Your task to perform on an android device: Open Google Chrome and click the shortcut for Amazon.com Image 0: 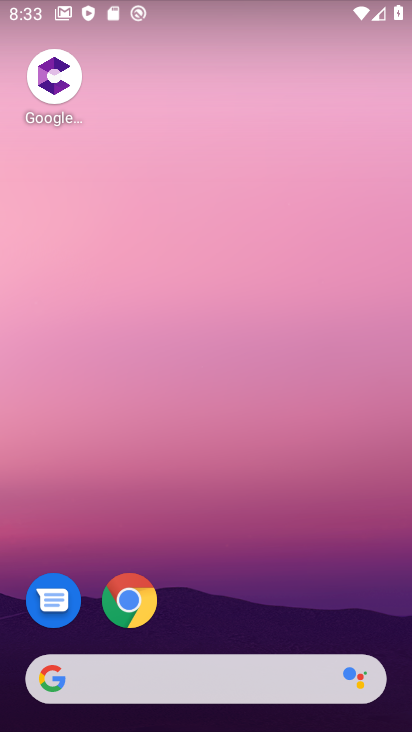
Step 0: click (133, 601)
Your task to perform on an android device: Open Google Chrome and click the shortcut for Amazon.com Image 1: 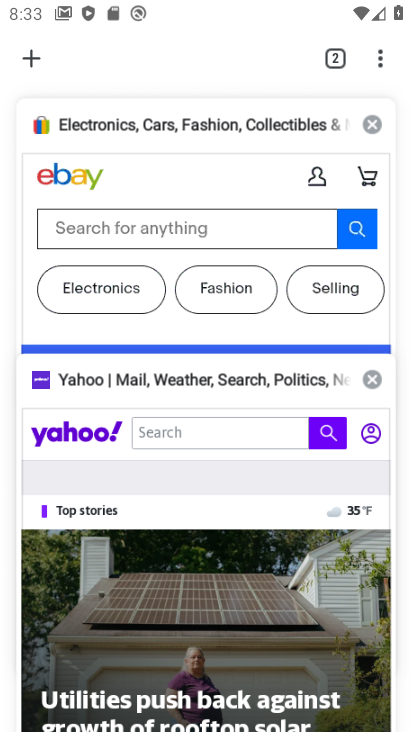
Step 1: click (133, 601)
Your task to perform on an android device: Open Google Chrome and click the shortcut for Amazon.com Image 2: 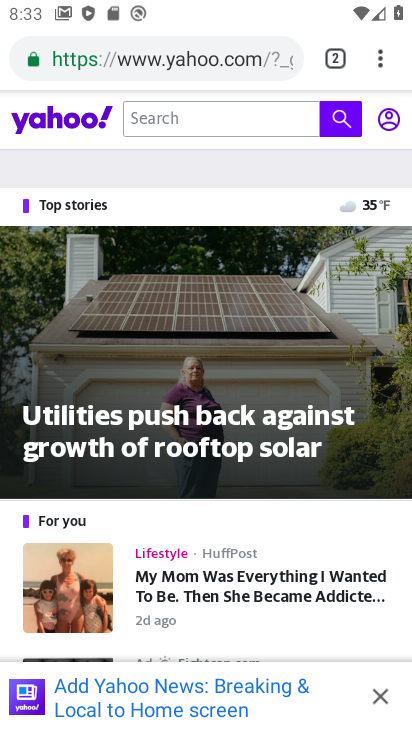
Step 2: click (337, 55)
Your task to perform on an android device: Open Google Chrome and click the shortcut for Amazon.com Image 3: 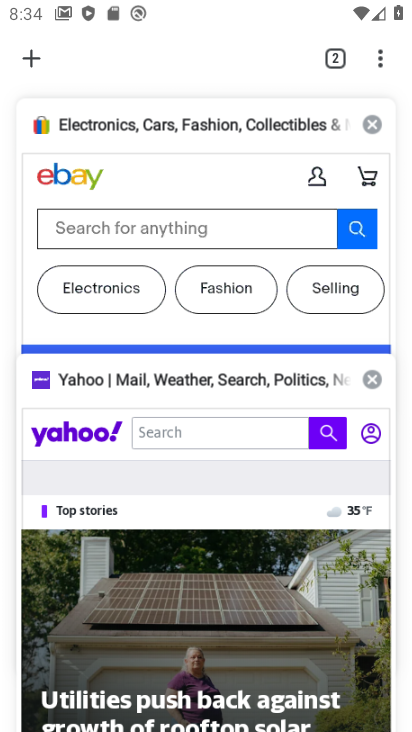
Step 3: click (41, 48)
Your task to perform on an android device: Open Google Chrome and click the shortcut for Amazon.com Image 4: 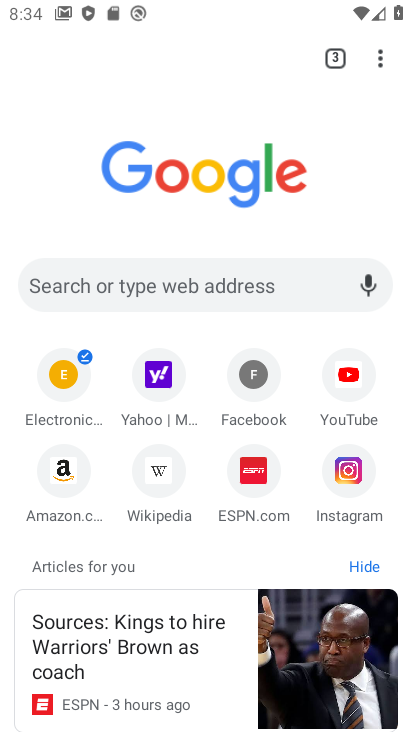
Step 4: click (76, 463)
Your task to perform on an android device: Open Google Chrome and click the shortcut for Amazon.com Image 5: 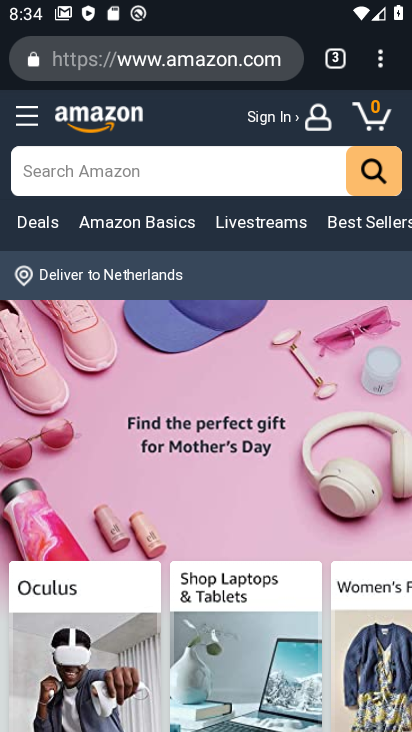
Step 5: task complete